Your task to perform on an android device: toggle translation in the chrome app Image 0: 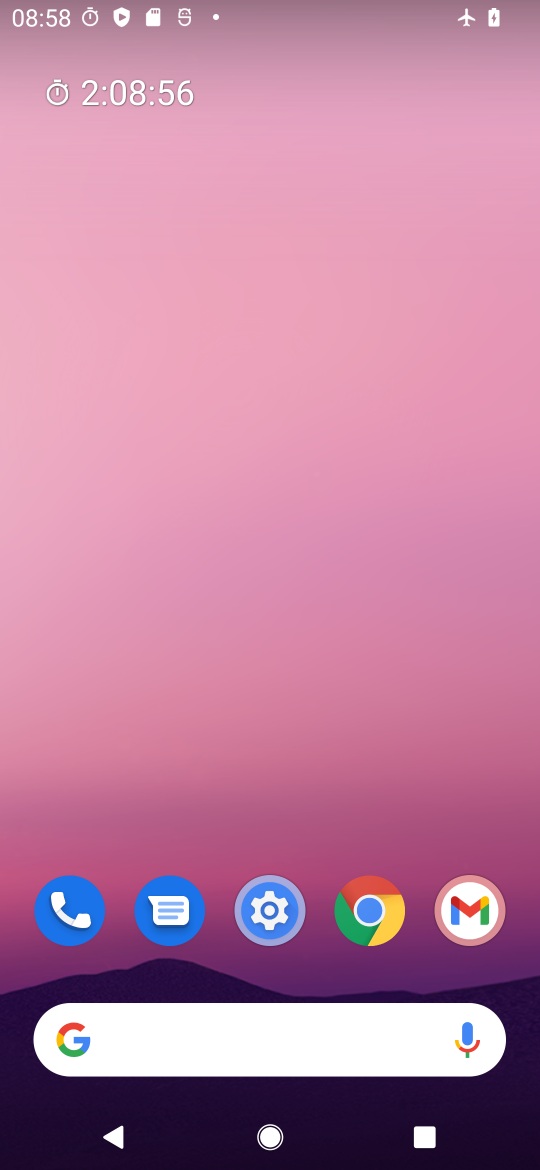
Step 0: drag from (240, 1056) to (157, 171)
Your task to perform on an android device: toggle translation in the chrome app Image 1: 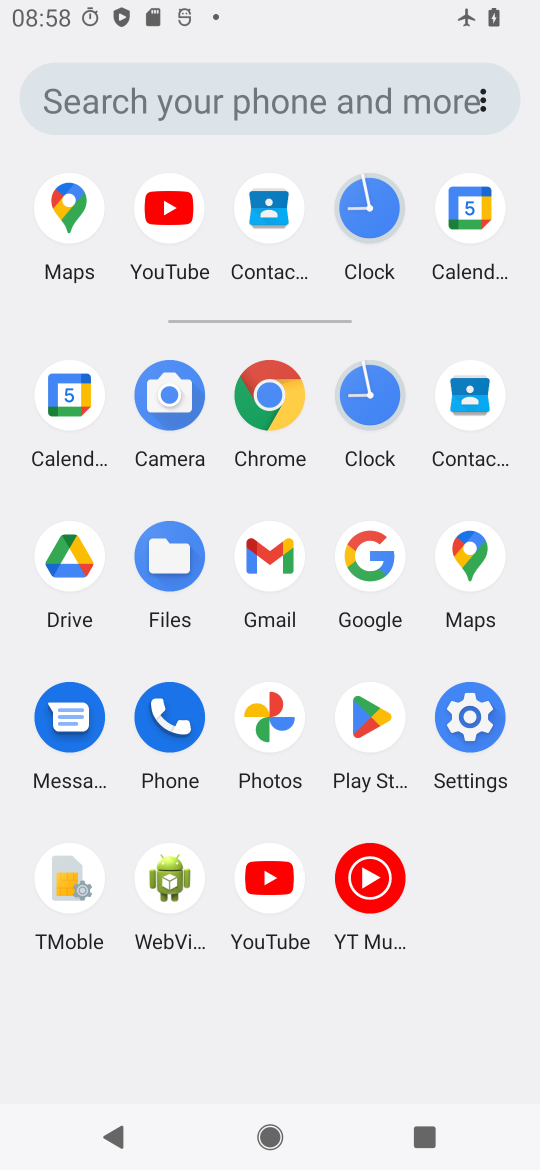
Step 1: click (293, 414)
Your task to perform on an android device: toggle translation in the chrome app Image 2: 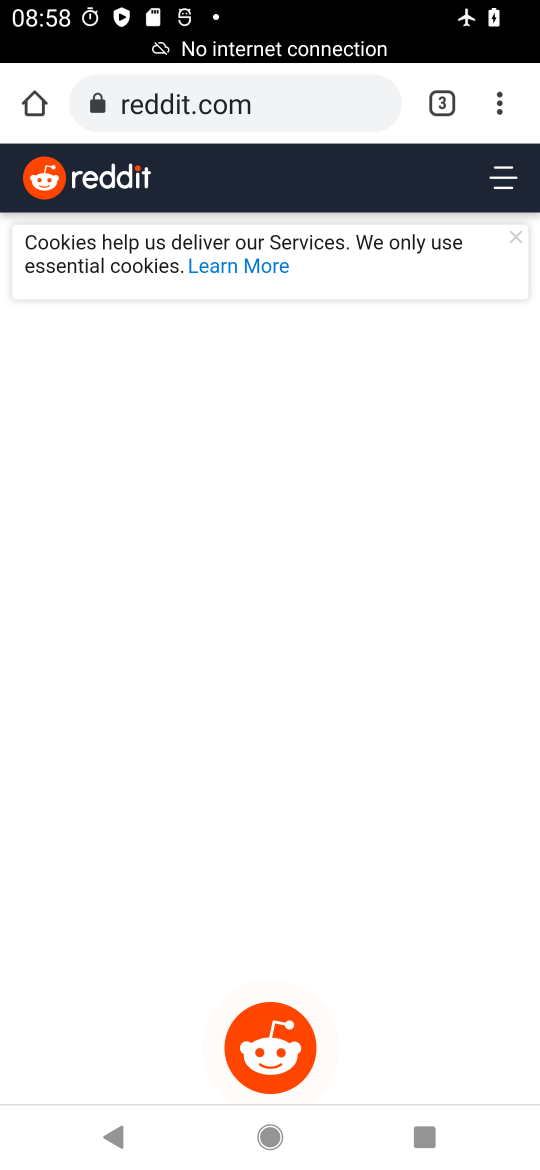
Step 2: click (503, 97)
Your task to perform on an android device: toggle translation in the chrome app Image 3: 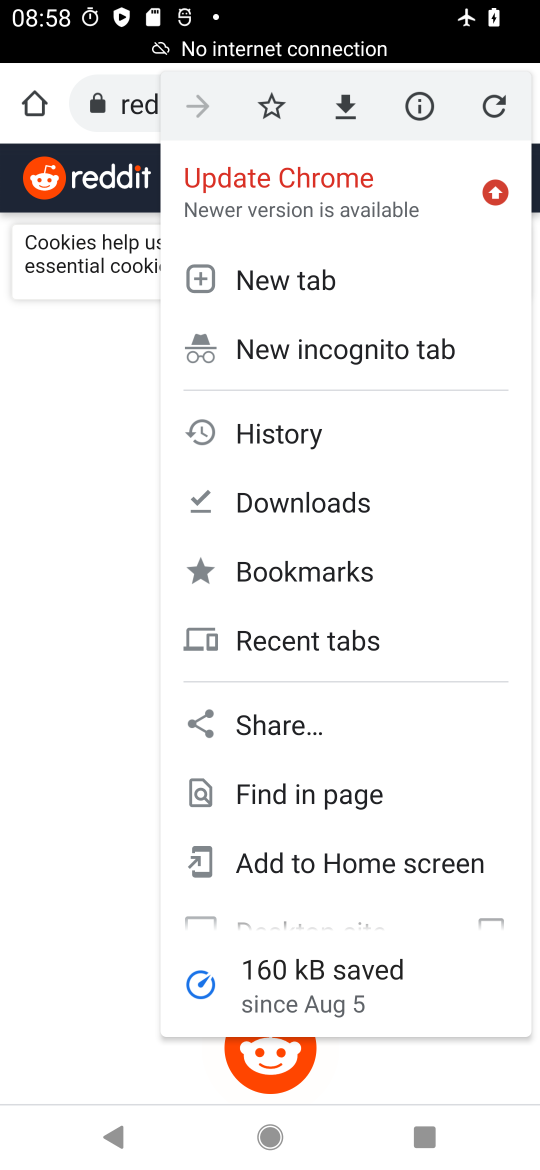
Step 3: drag from (448, 851) to (398, 325)
Your task to perform on an android device: toggle translation in the chrome app Image 4: 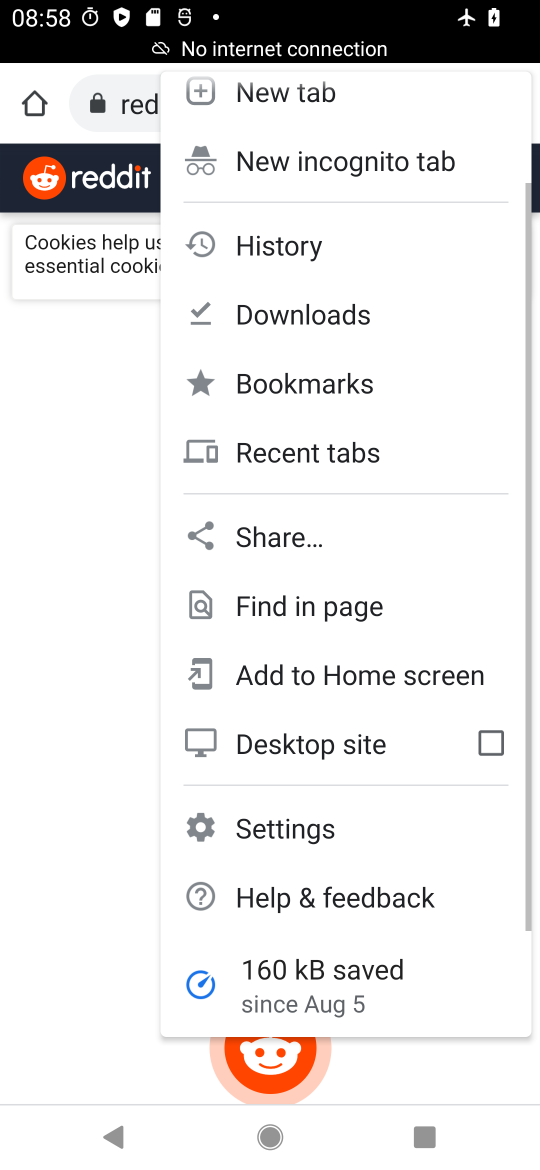
Step 4: click (363, 829)
Your task to perform on an android device: toggle translation in the chrome app Image 5: 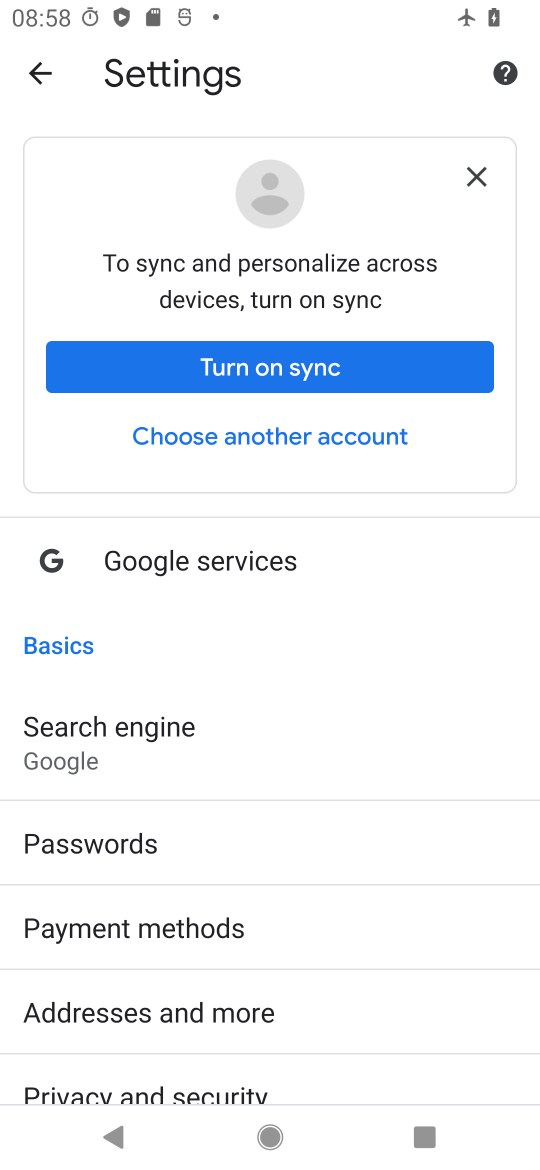
Step 5: drag from (354, 1034) to (499, 332)
Your task to perform on an android device: toggle translation in the chrome app Image 6: 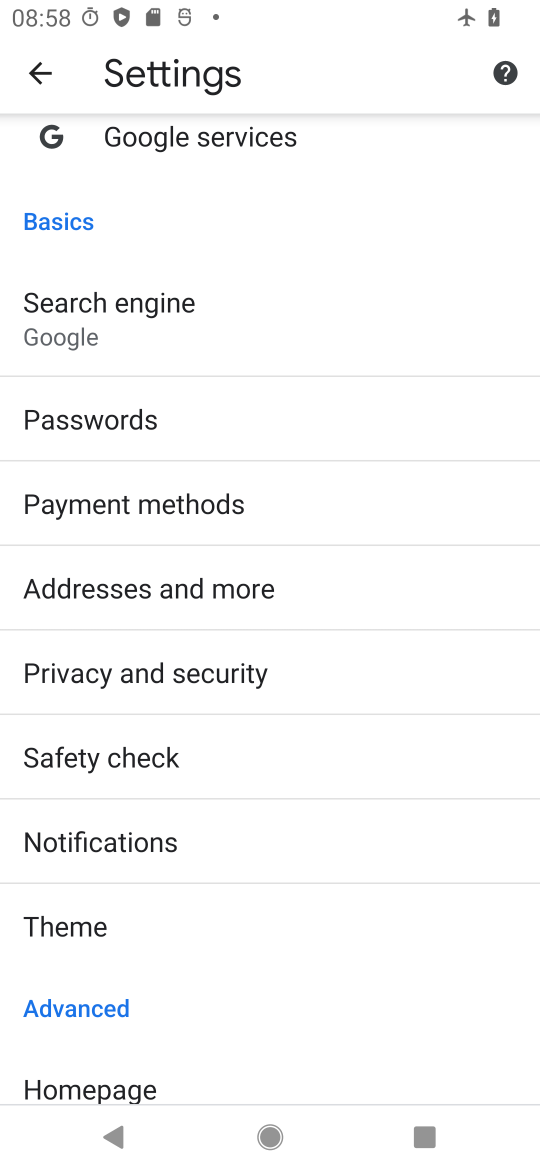
Step 6: drag from (422, 993) to (410, 284)
Your task to perform on an android device: toggle translation in the chrome app Image 7: 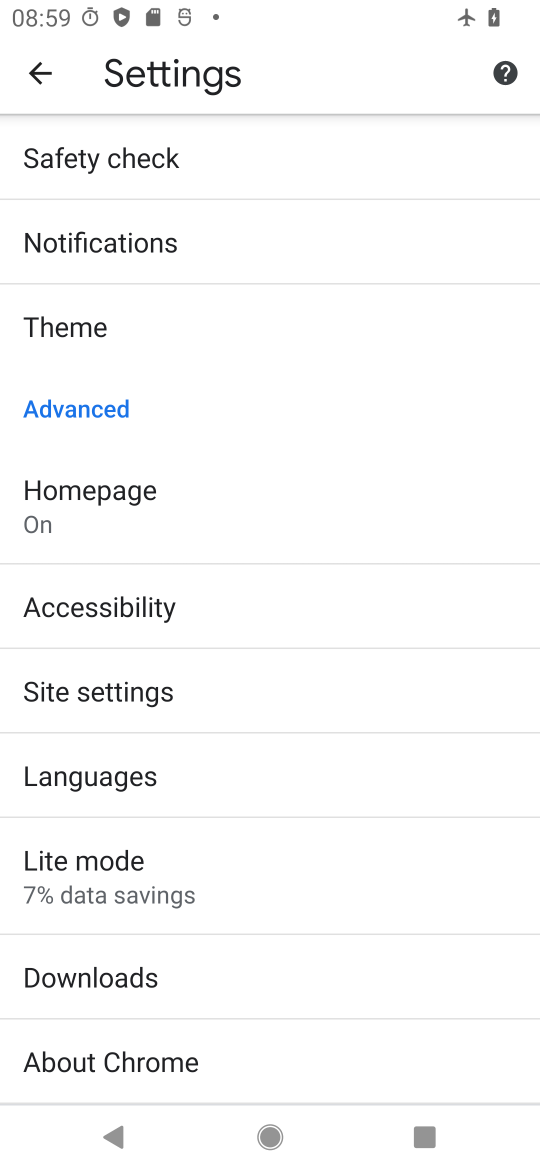
Step 7: click (210, 772)
Your task to perform on an android device: toggle translation in the chrome app Image 8: 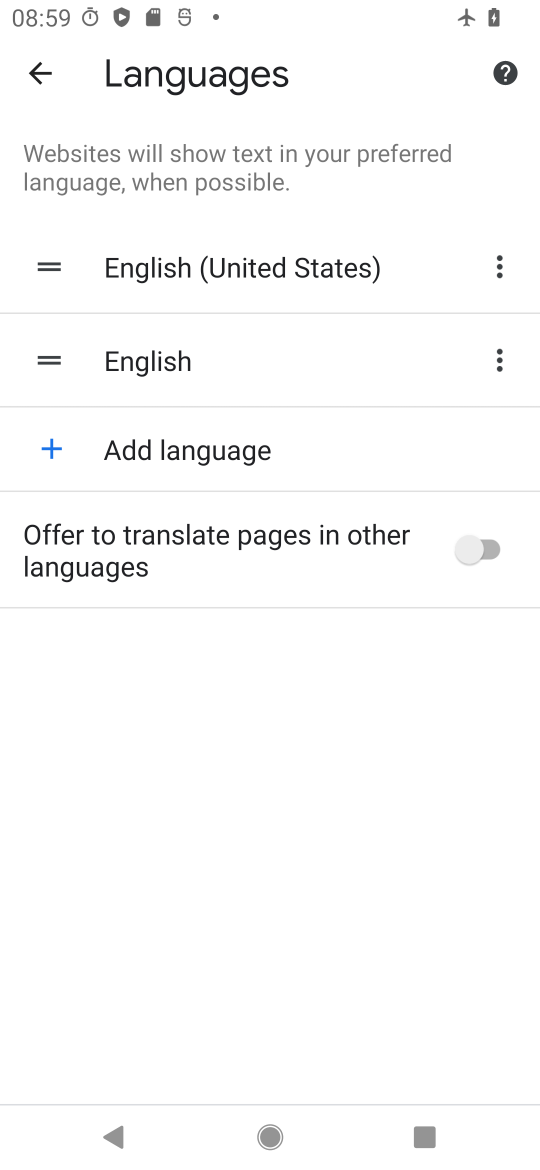
Step 8: click (492, 539)
Your task to perform on an android device: toggle translation in the chrome app Image 9: 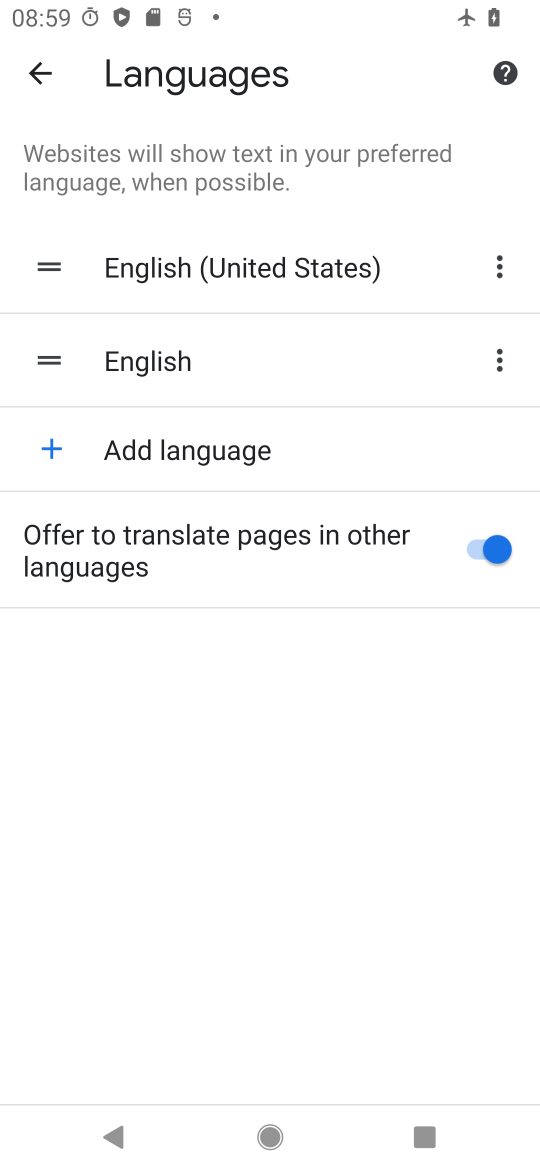
Step 9: task complete